Your task to perform on an android device: set the stopwatch Image 0: 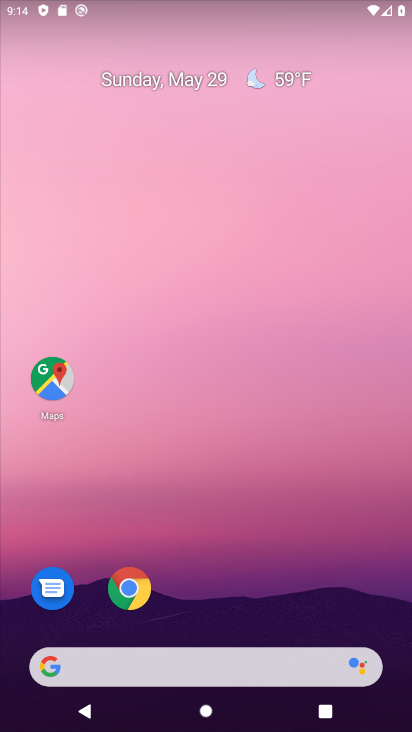
Step 0: drag from (243, 622) to (359, 34)
Your task to perform on an android device: set the stopwatch Image 1: 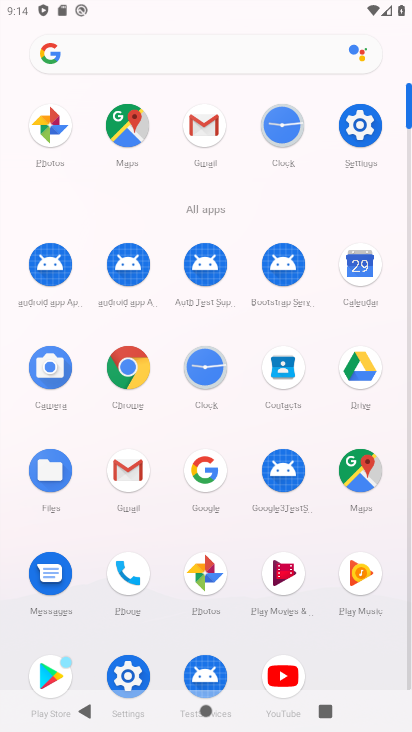
Step 1: click (212, 379)
Your task to perform on an android device: set the stopwatch Image 2: 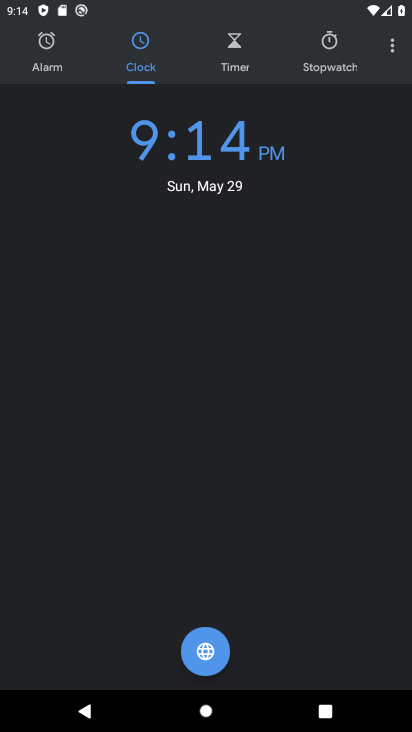
Step 2: click (346, 73)
Your task to perform on an android device: set the stopwatch Image 3: 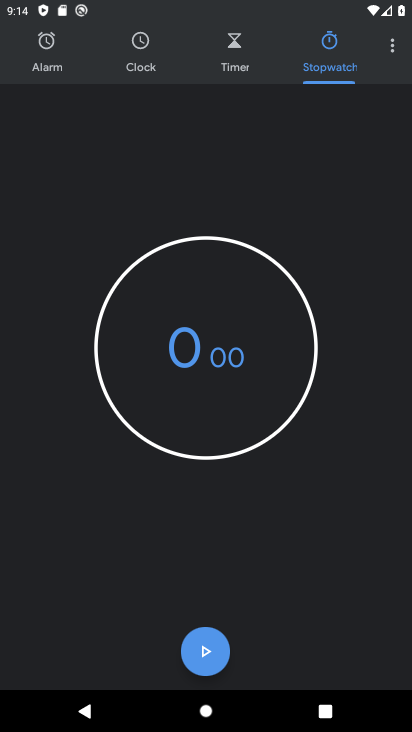
Step 3: click (210, 656)
Your task to perform on an android device: set the stopwatch Image 4: 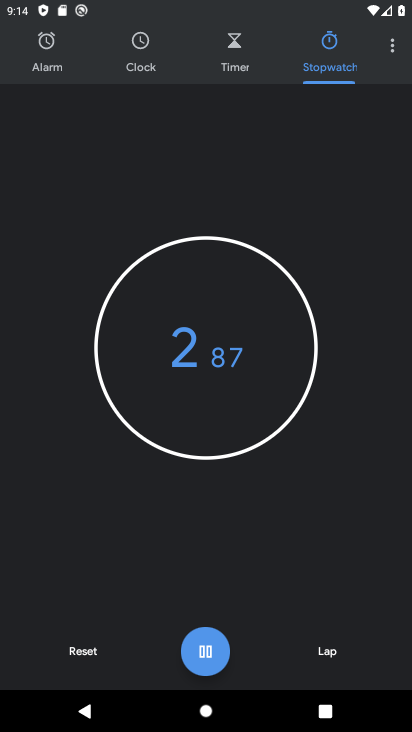
Step 4: task complete